Your task to perform on an android device: Go to settings Image 0: 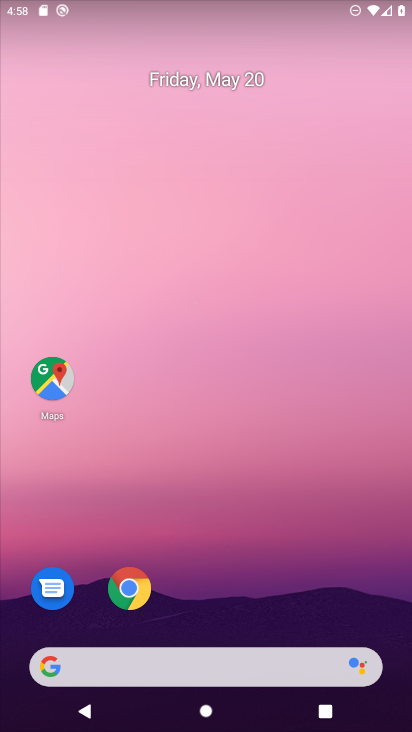
Step 0: drag from (232, 593) to (188, 210)
Your task to perform on an android device: Go to settings Image 1: 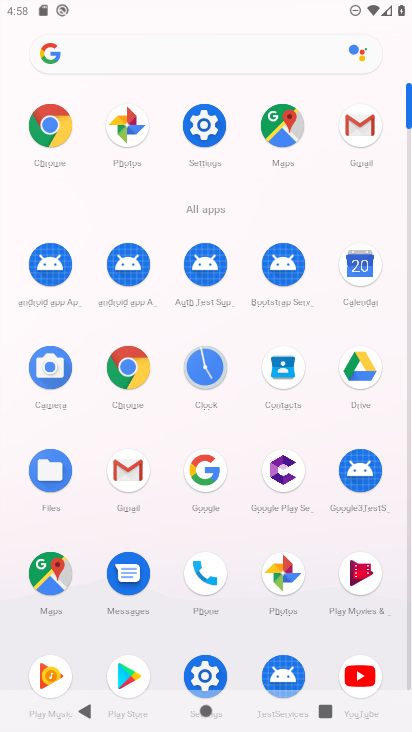
Step 1: click (202, 126)
Your task to perform on an android device: Go to settings Image 2: 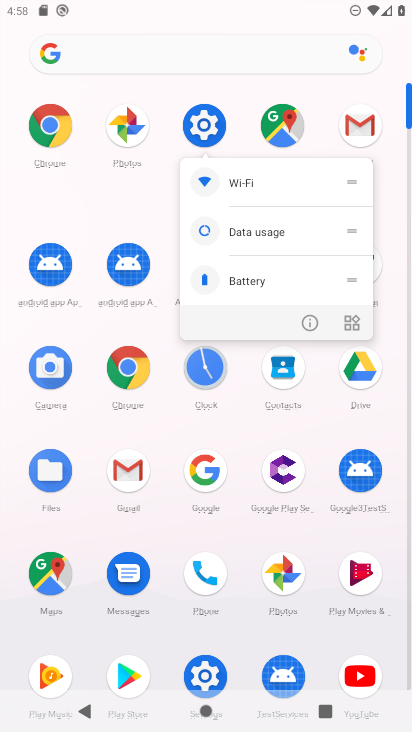
Step 2: click (202, 126)
Your task to perform on an android device: Go to settings Image 3: 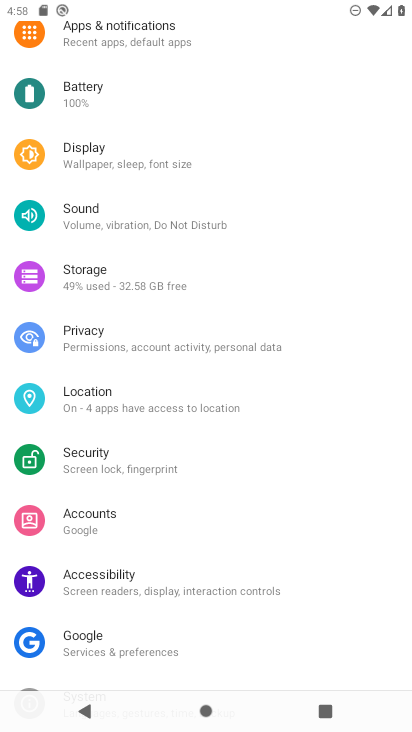
Step 3: task complete